Your task to perform on an android device: set default search engine in the chrome app Image 0: 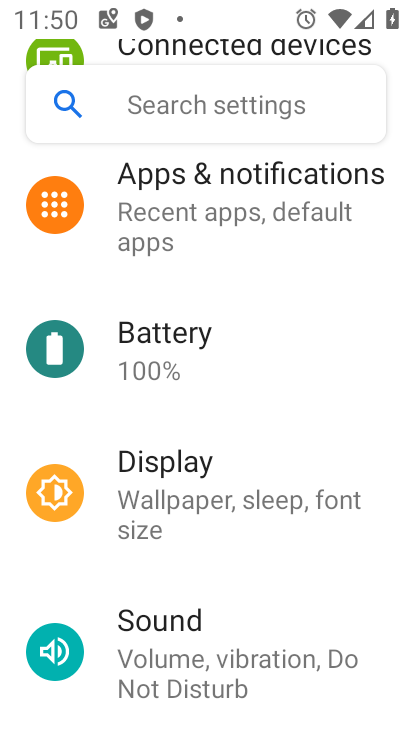
Step 0: press home button
Your task to perform on an android device: set default search engine in the chrome app Image 1: 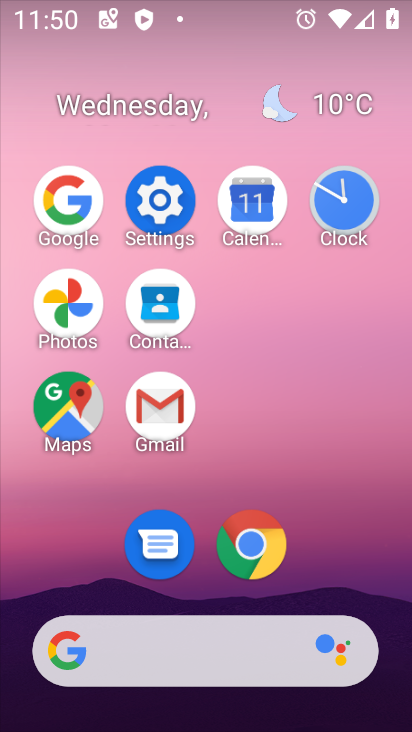
Step 1: click (251, 553)
Your task to perform on an android device: set default search engine in the chrome app Image 2: 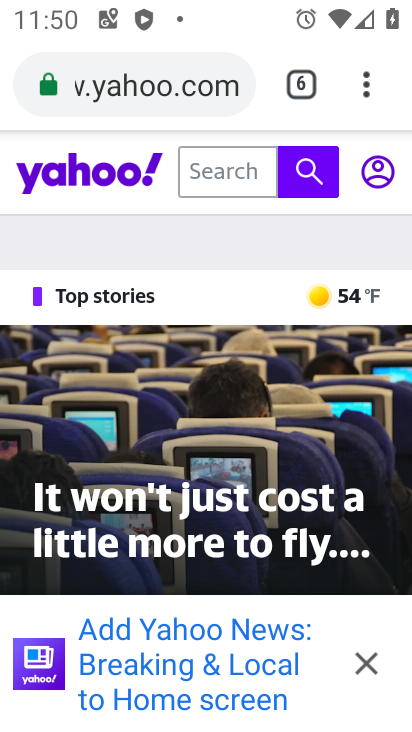
Step 2: click (373, 74)
Your task to perform on an android device: set default search engine in the chrome app Image 3: 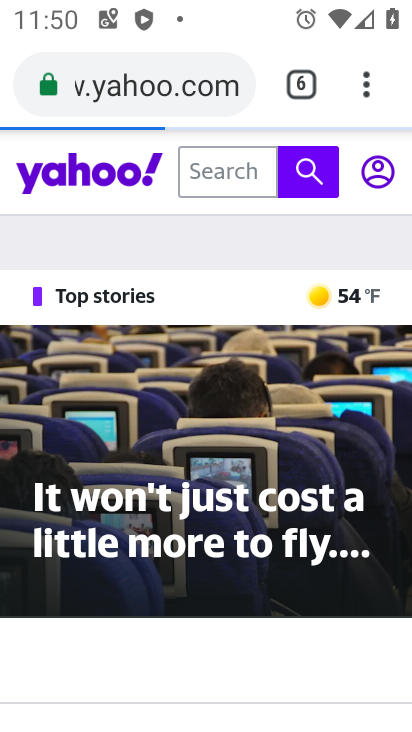
Step 3: click (373, 95)
Your task to perform on an android device: set default search engine in the chrome app Image 4: 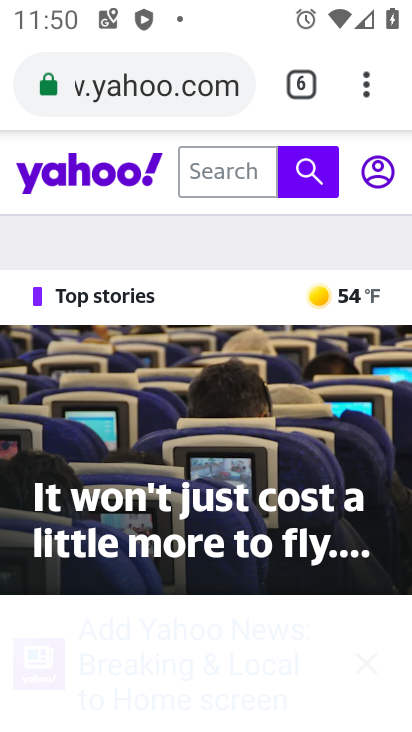
Step 4: click (359, 45)
Your task to perform on an android device: set default search engine in the chrome app Image 5: 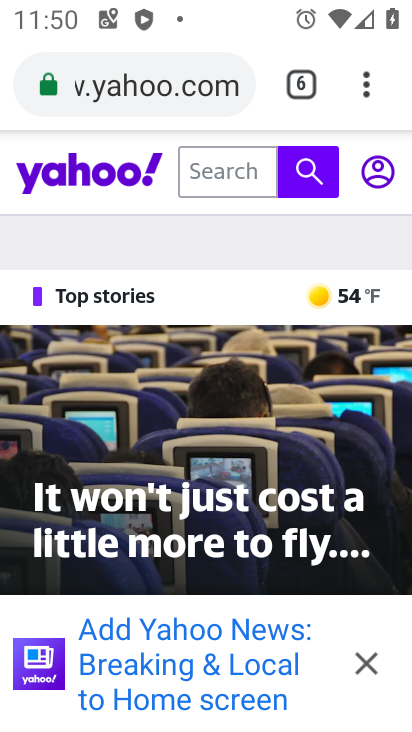
Step 5: click (368, 77)
Your task to perform on an android device: set default search engine in the chrome app Image 6: 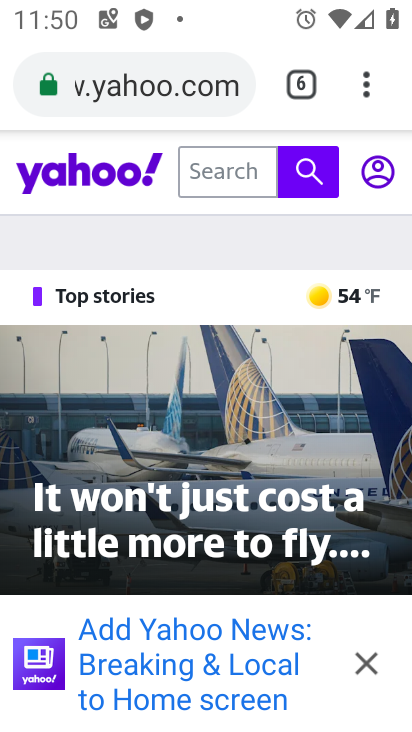
Step 6: click (369, 87)
Your task to perform on an android device: set default search engine in the chrome app Image 7: 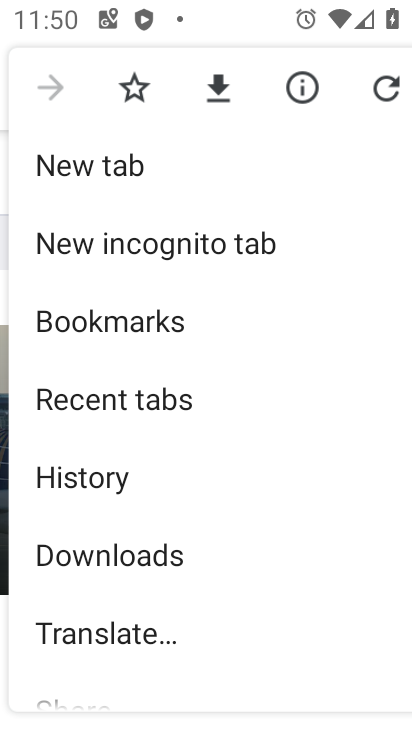
Step 7: drag from (265, 583) to (319, 168)
Your task to perform on an android device: set default search engine in the chrome app Image 8: 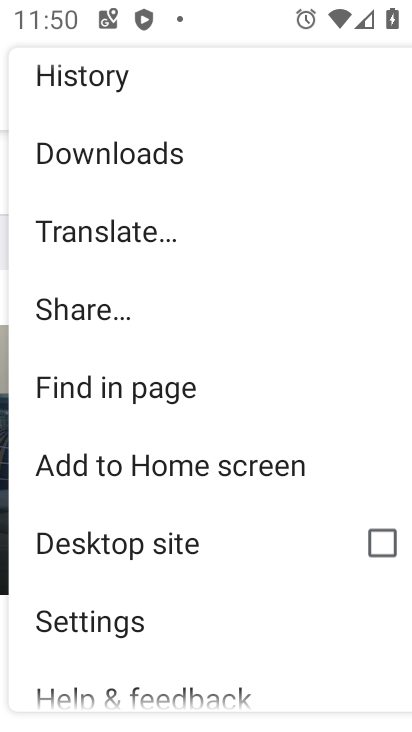
Step 8: click (125, 632)
Your task to perform on an android device: set default search engine in the chrome app Image 9: 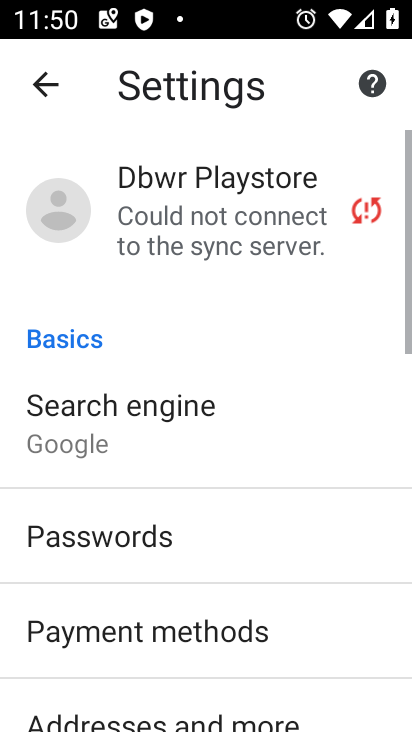
Step 9: drag from (184, 599) to (240, 230)
Your task to perform on an android device: set default search engine in the chrome app Image 10: 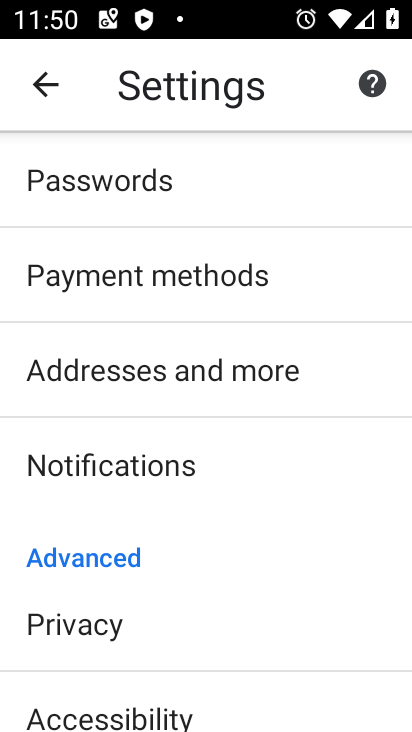
Step 10: drag from (196, 635) to (225, 249)
Your task to perform on an android device: set default search engine in the chrome app Image 11: 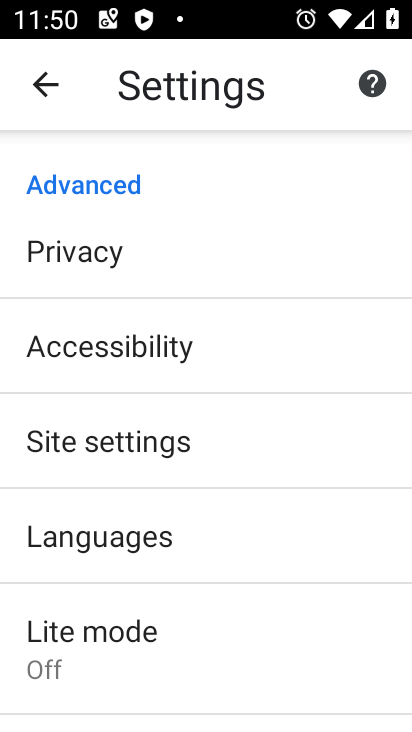
Step 11: drag from (262, 246) to (260, 695)
Your task to perform on an android device: set default search engine in the chrome app Image 12: 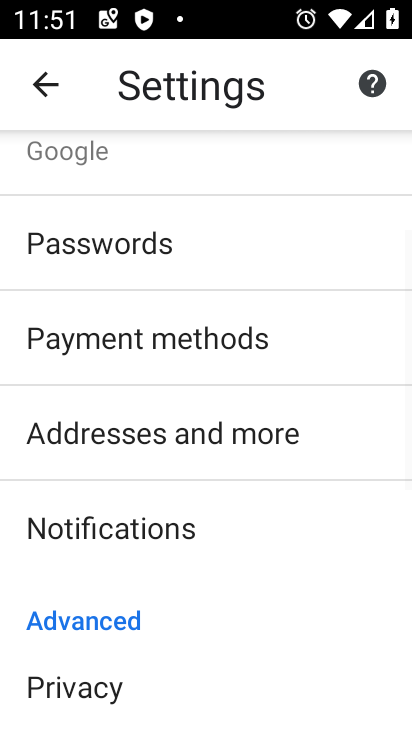
Step 12: drag from (250, 271) to (262, 669)
Your task to perform on an android device: set default search engine in the chrome app Image 13: 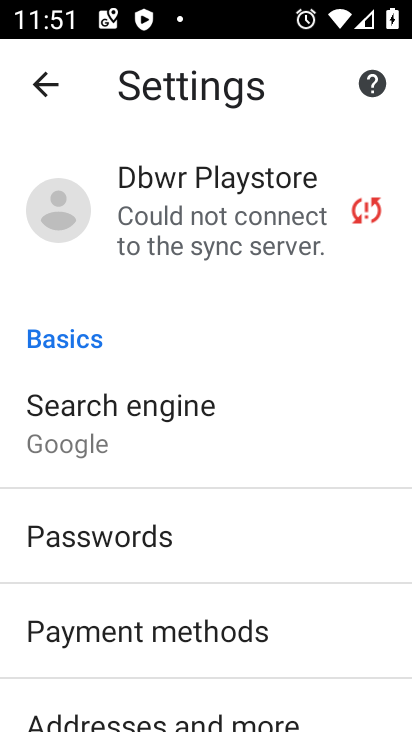
Step 13: click (190, 404)
Your task to perform on an android device: set default search engine in the chrome app Image 14: 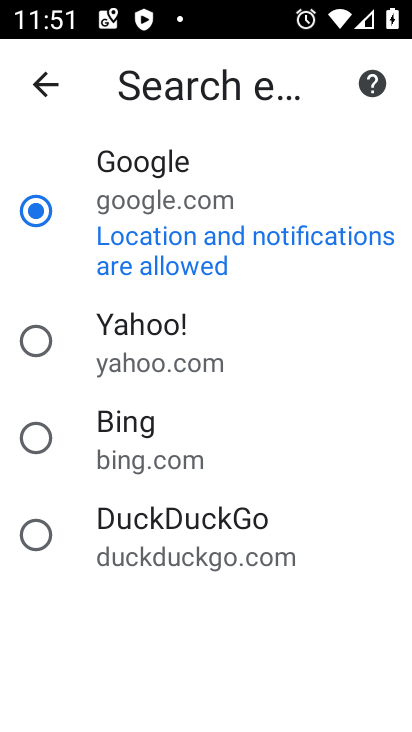
Step 14: task complete